Your task to perform on an android device: allow cookies in the chrome app Image 0: 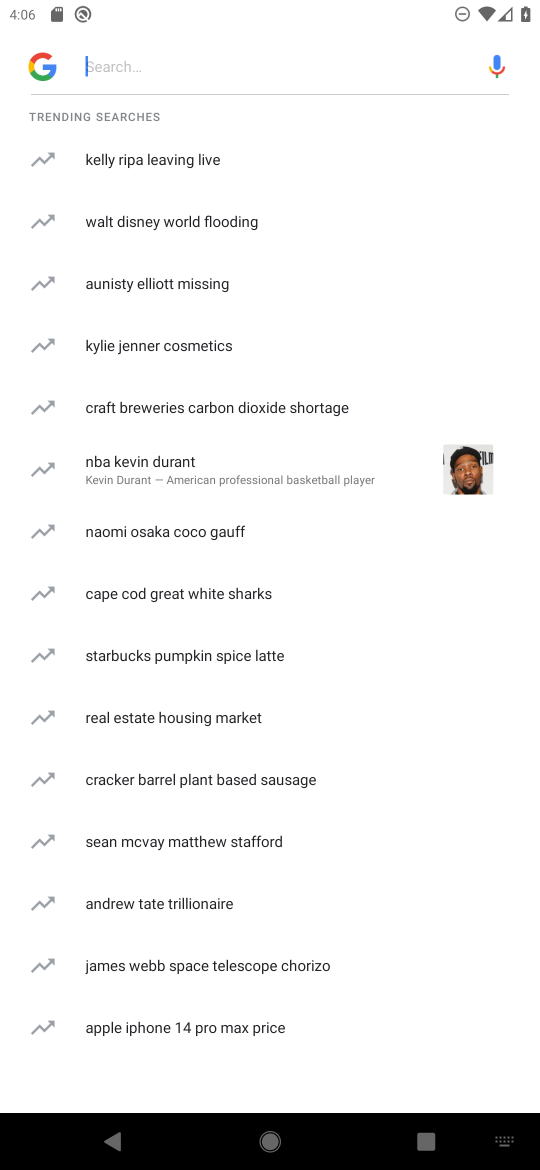
Step 0: press home button
Your task to perform on an android device: allow cookies in the chrome app Image 1: 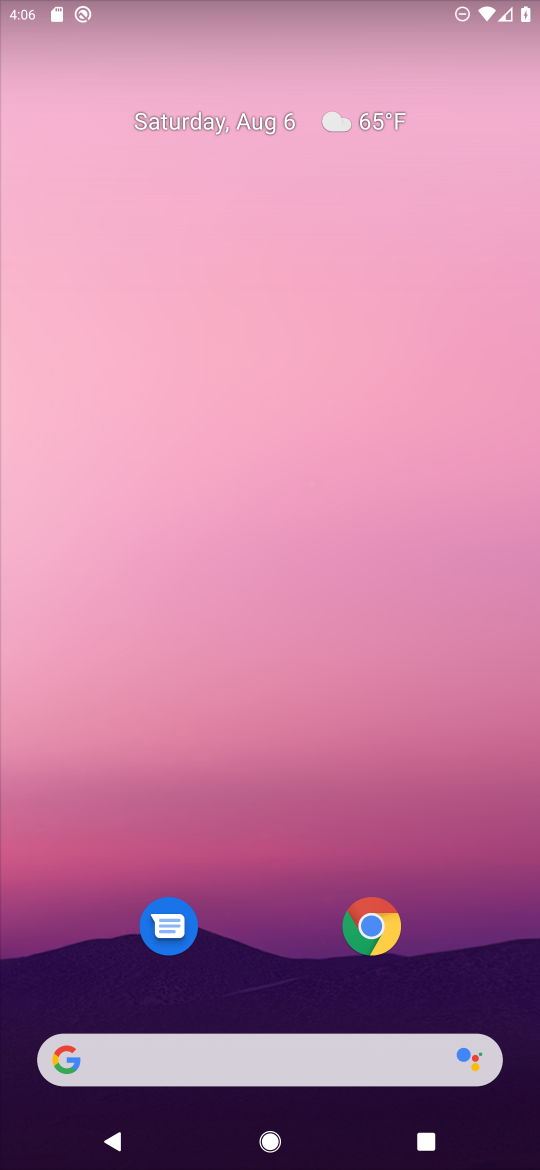
Step 1: click (367, 937)
Your task to perform on an android device: allow cookies in the chrome app Image 2: 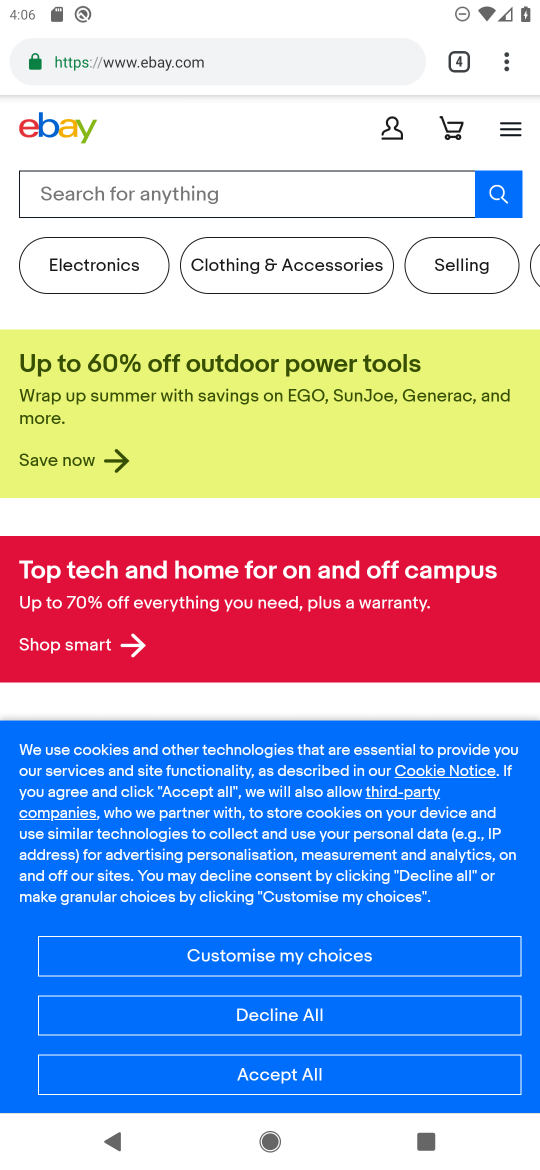
Step 2: click (509, 68)
Your task to perform on an android device: allow cookies in the chrome app Image 3: 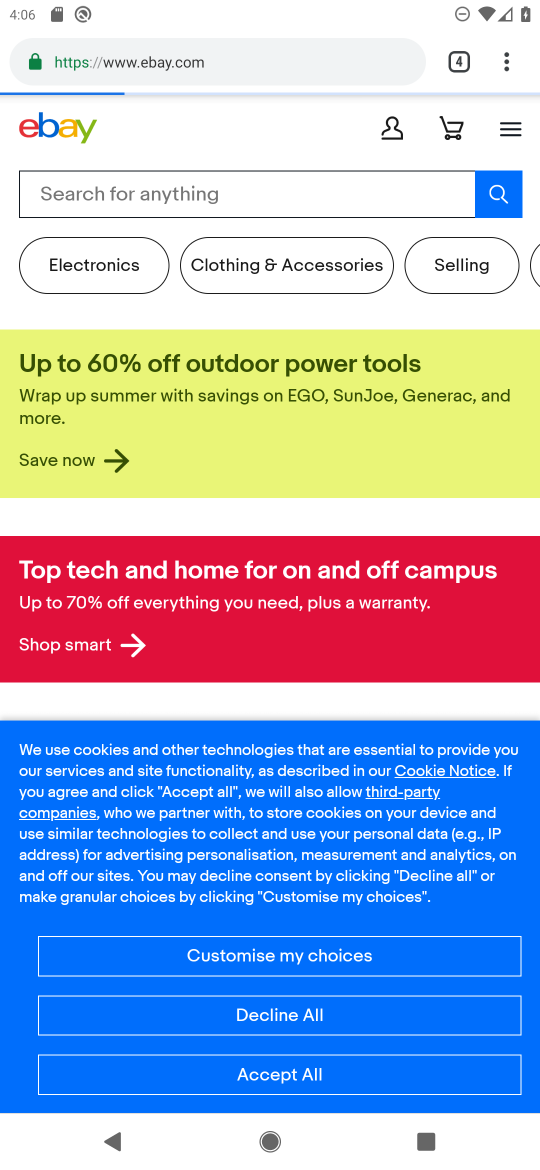
Step 3: click (509, 68)
Your task to perform on an android device: allow cookies in the chrome app Image 4: 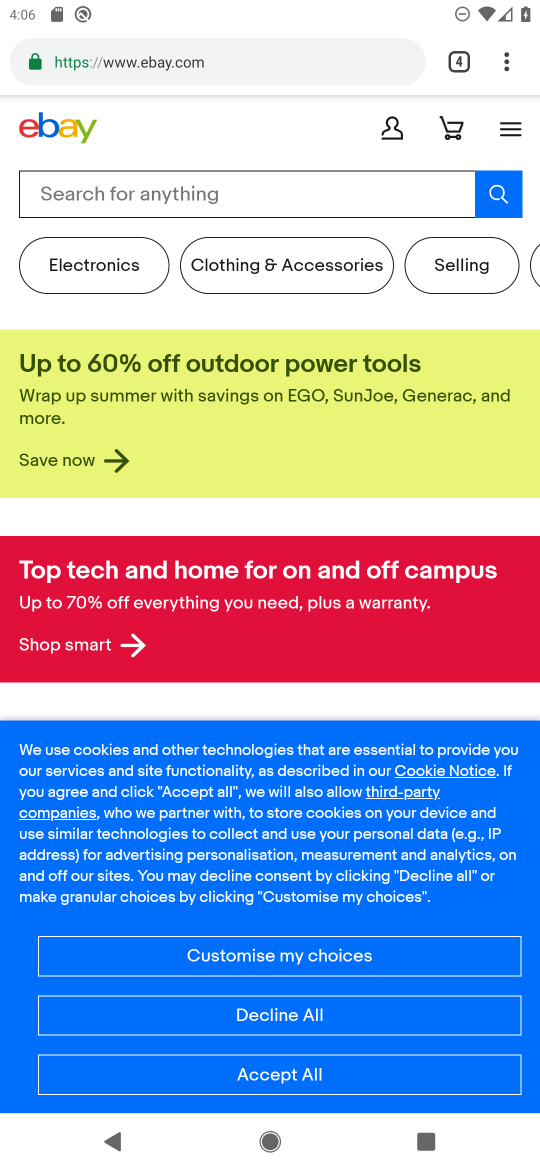
Step 4: click (509, 68)
Your task to perform on an android device: allow cookies in the chrome app Image 5: 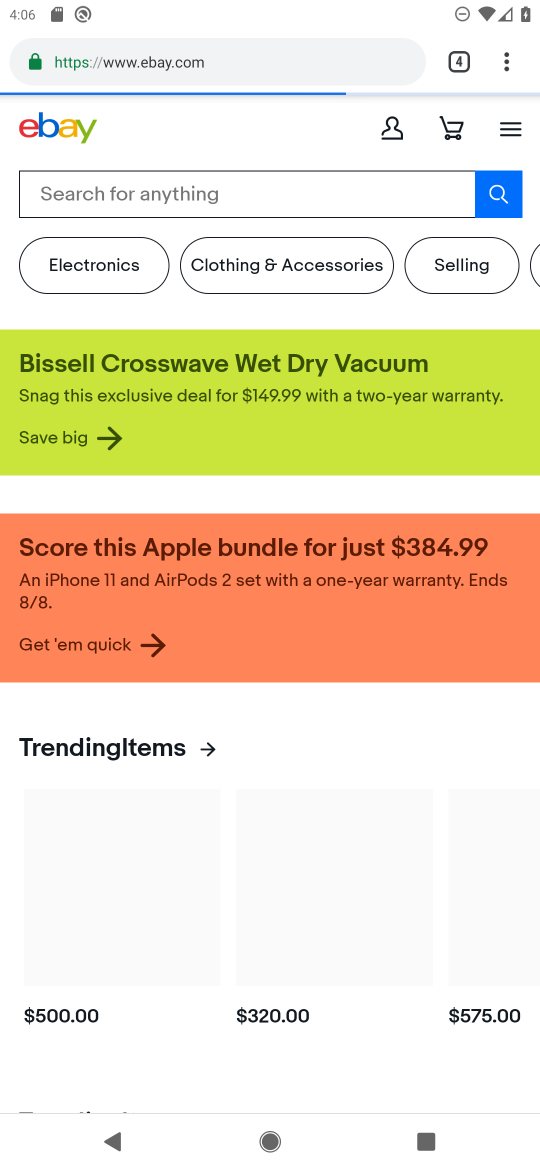
Step 5: drag from (509, 68) to (300, 738)
Your task to perform on an android device: allow cookies in the chrome app Image 6: 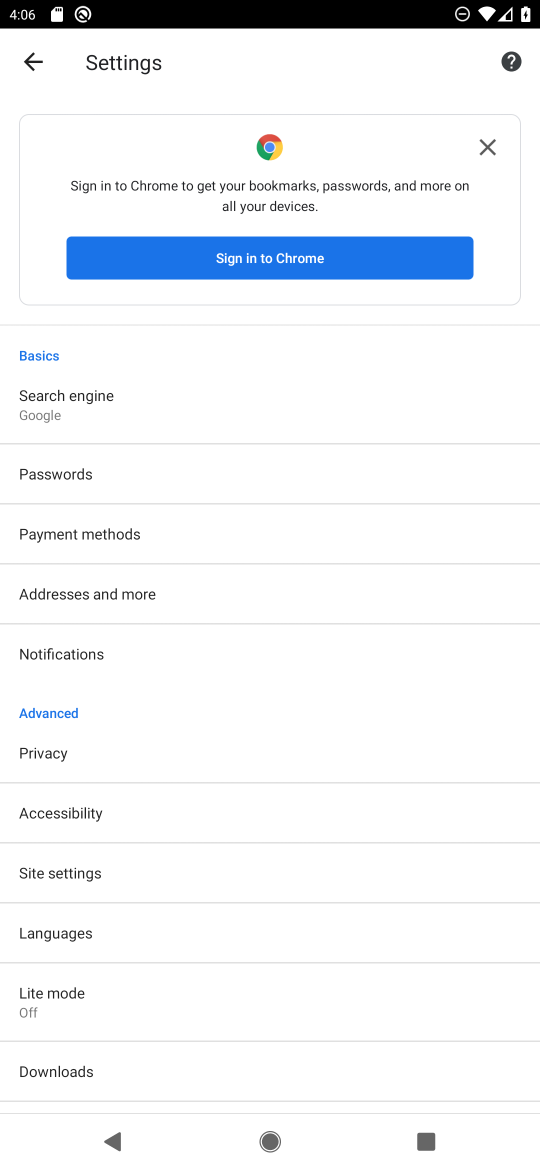
Step 6: click (114, 882)
Your task to perform on an android device: allow cookies in the chrome app Image 7: 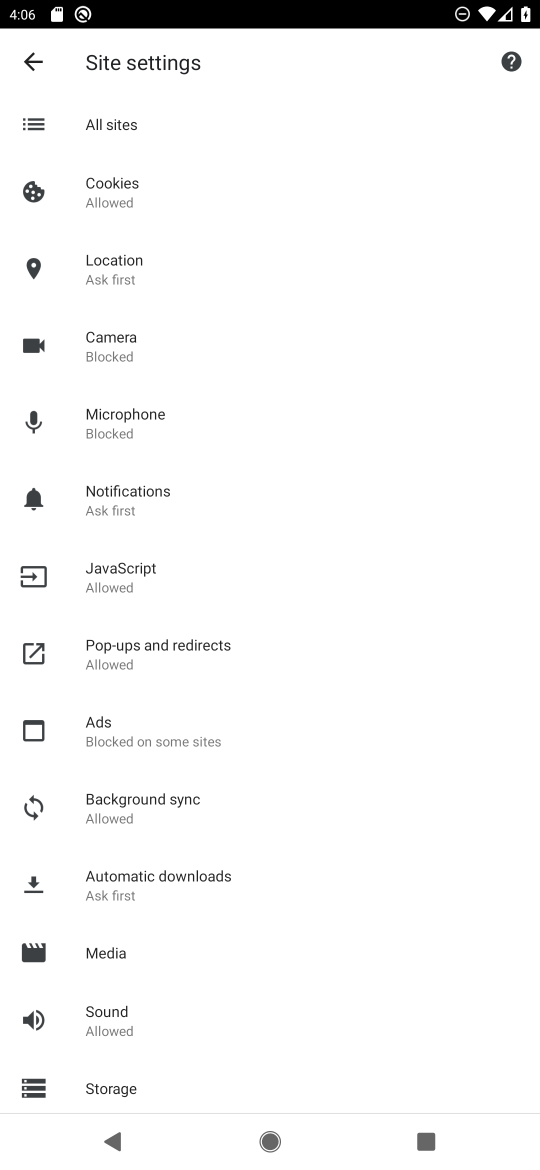
Step 7: drag from (213, 383) to (213, 658)
Your task to perform on an android device: allow cookies in the chrome app Image 8: 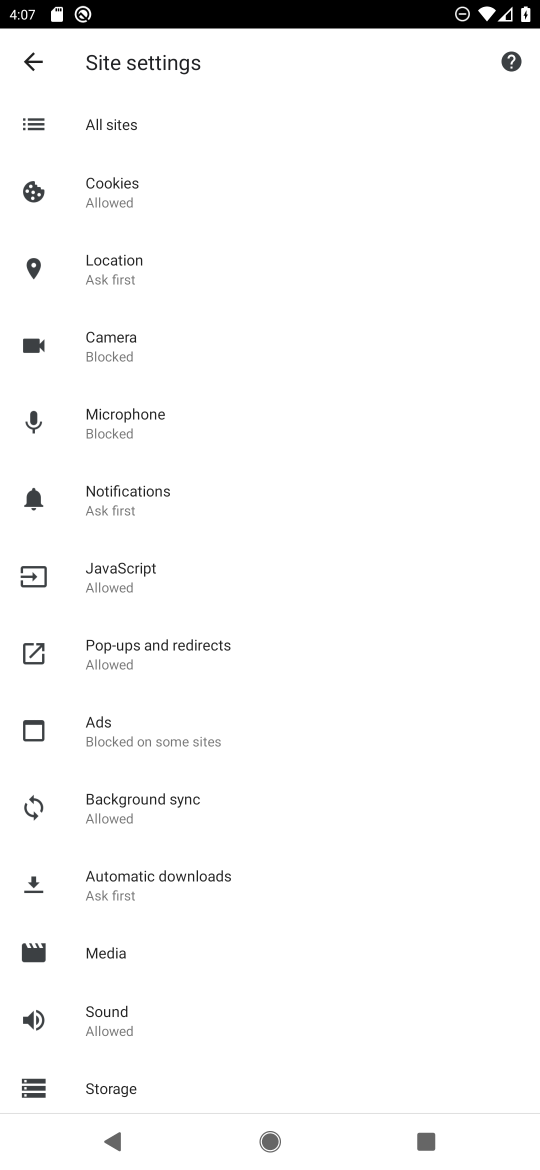
Step 8: click (138, 202)
Your task to perform on an android device: allow cookies in the chrome app Image 9: 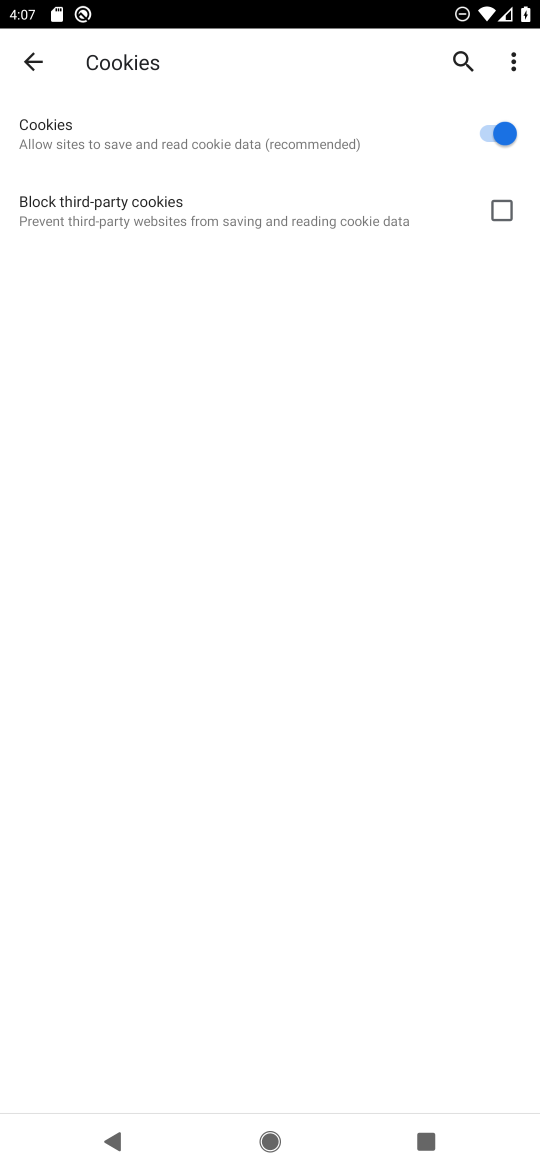
Step 9: press home button
Your task to perform on an android device: allow cookies in the chrome app Image 10: 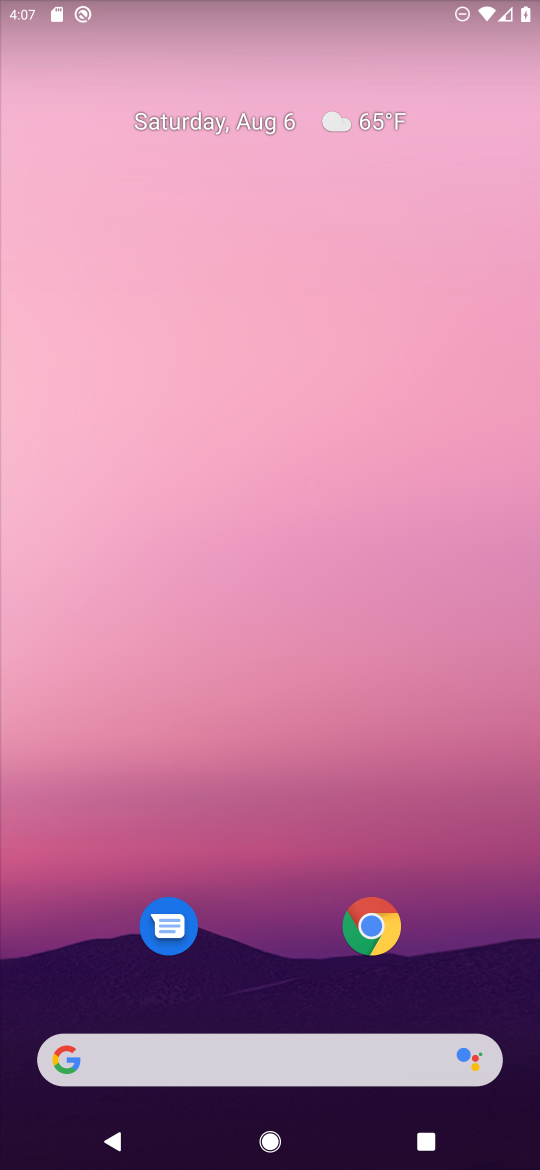
Step 10: click (378, 924)
Your task to perform on an android device: allow cookies in the chrome app Image 11: 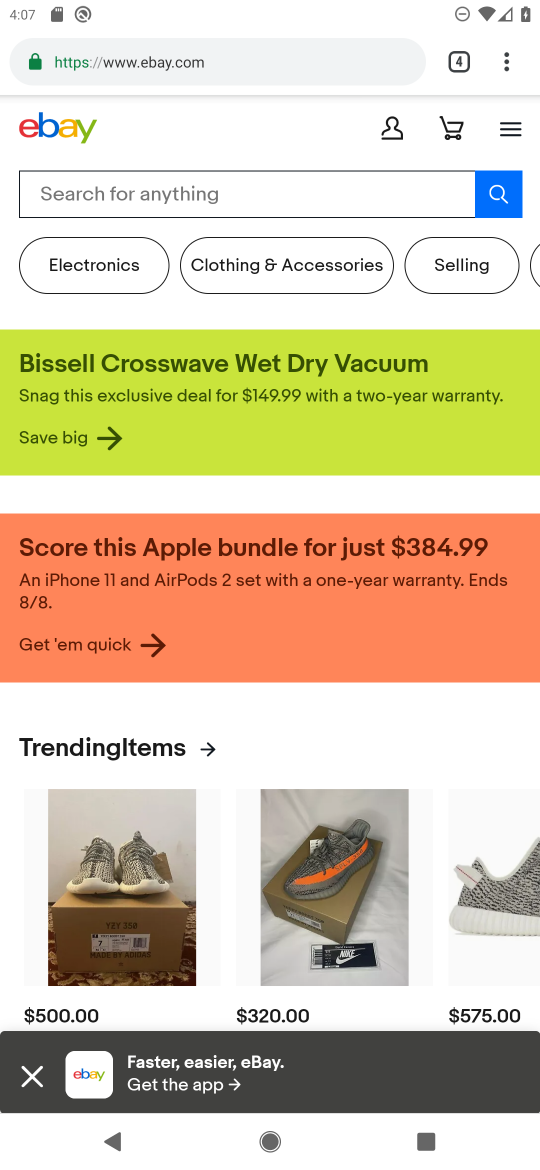
Step 11: click (513, 66)
Your task to perform on an android device: allow cookies in the chrome app Image 12: 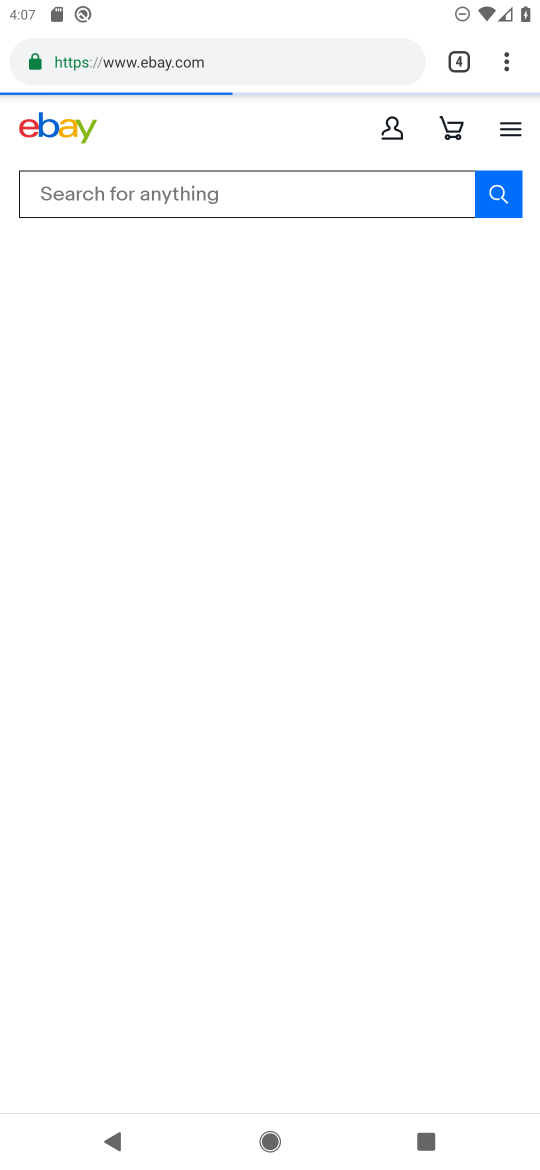
Step 12: drag from (502, 73) to (315, 741)
Your task to perform on an android device: allow cookies in the chrome app Image 13: 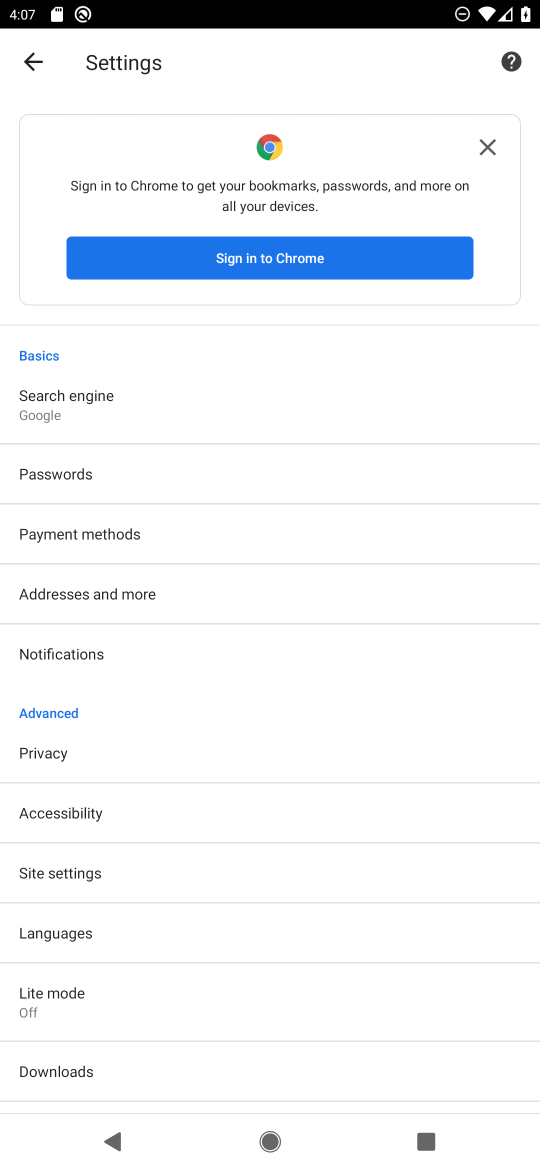
Step 13: click (126, 873)
Your task to perform on an android device: allow cookies in the chrome app Image 14: 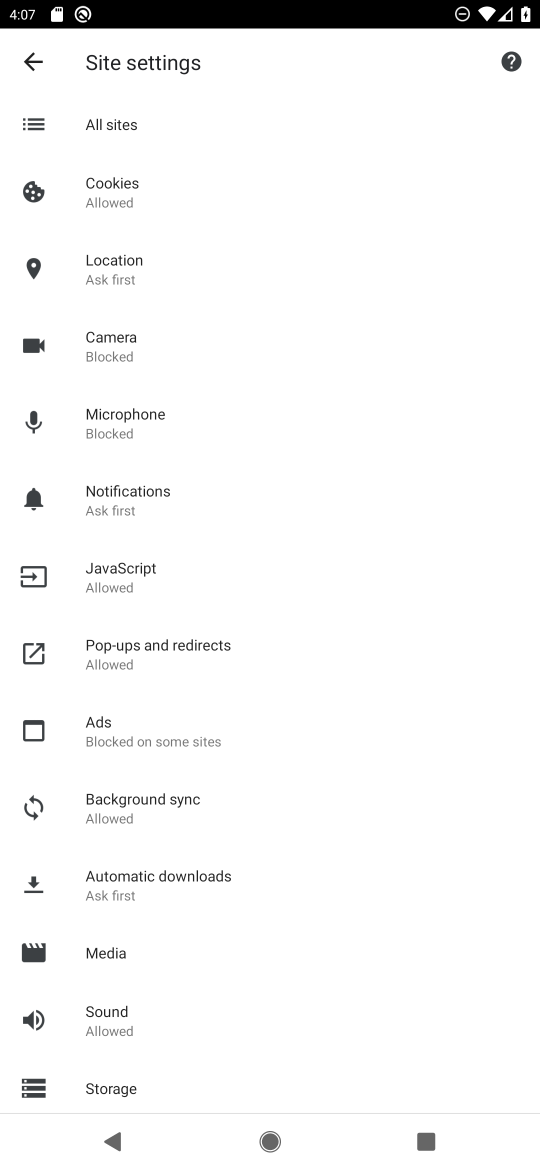
Step 14: click (227, 194)
Your task to perform on an android device: allow cookies in the chrome app Image 15: 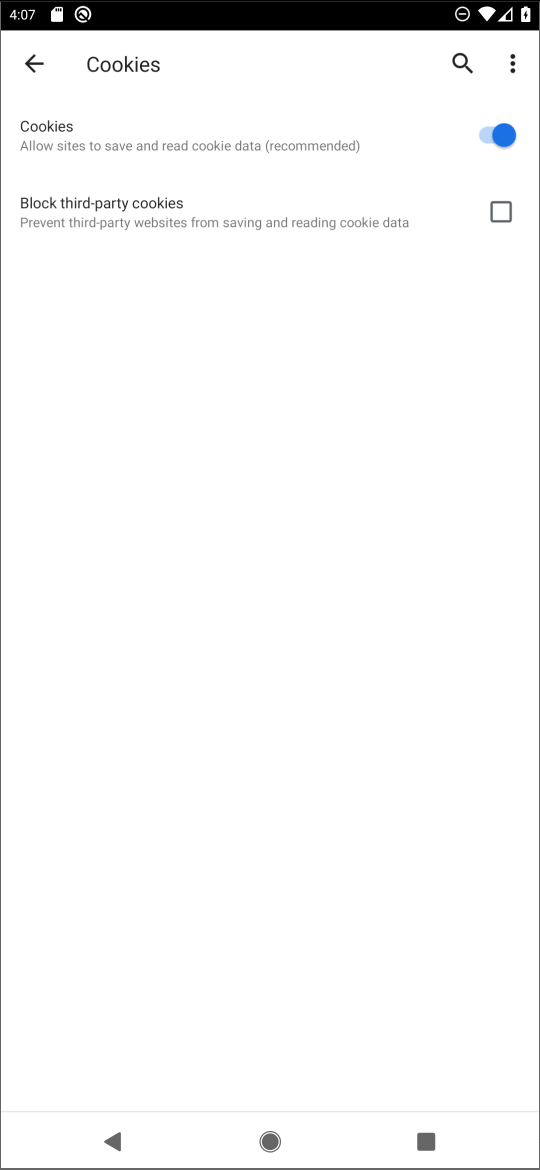
Step 15: task complete